Your task to perform on an android device: Turn on the flashlight Image 0: 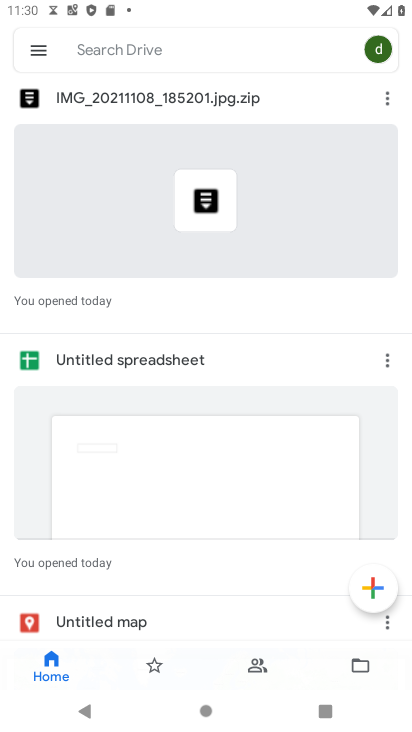
Step 0: press back button
Your task to perform on an android device: Turn on the flashlight Image 1: 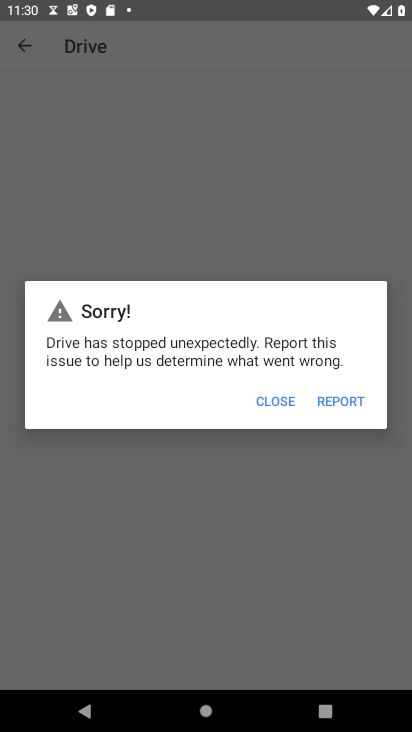
Step 1: click (276, 400)
Your task to perform on an android device: Turn on the flashlight Image 2: 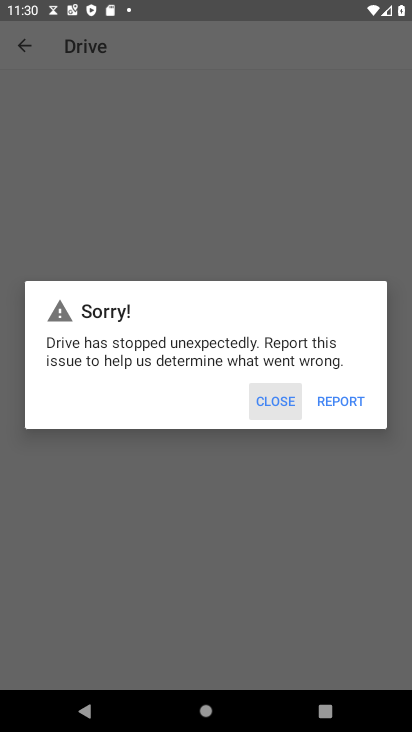
Step 2: click (277, 399)
Your task to perform on an android device: Turn on the flashlight Image 3: 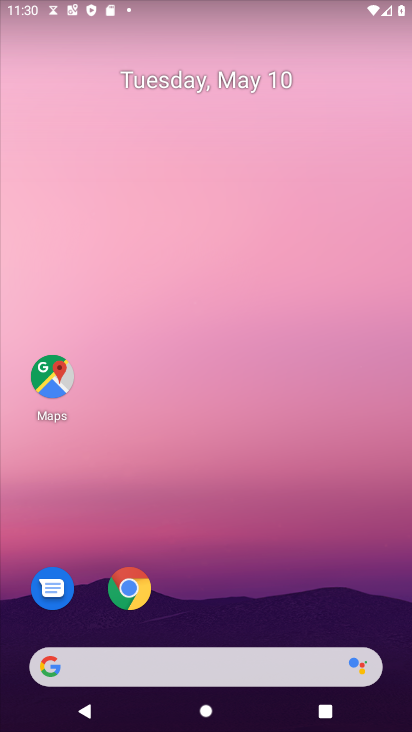
Step 3: drag from (222, 608) to (101, 107)
Your task to perform on an android device: Turn on the flashlight Image 4: 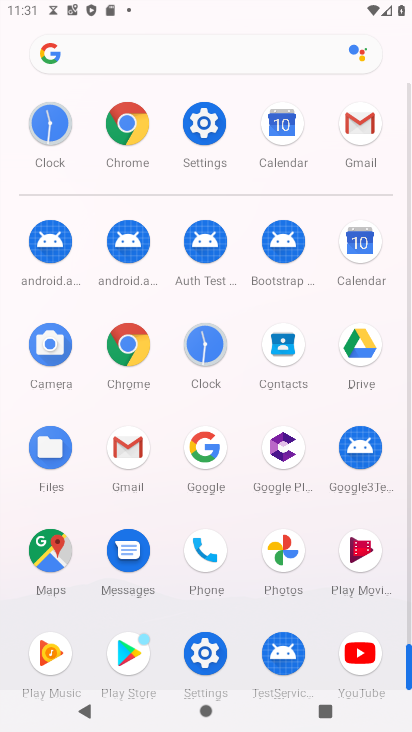
Step 4: click (251, 362)
Your task to perform on an android device: Turn on the flashlight Image 5: 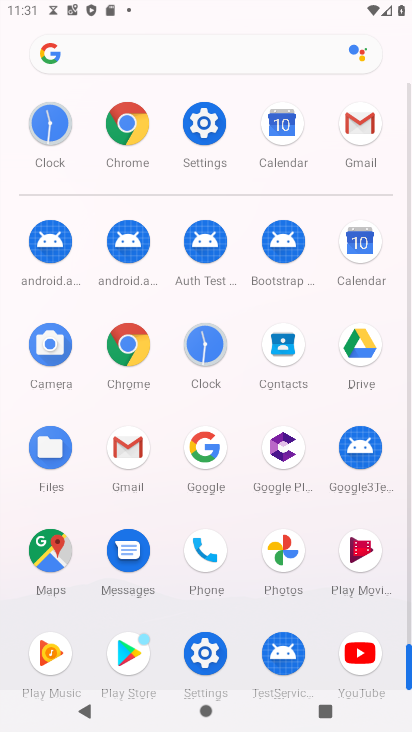
Step 5: task complete